Your task to perform on an android device: turn on translation in the chrome app Image 0: 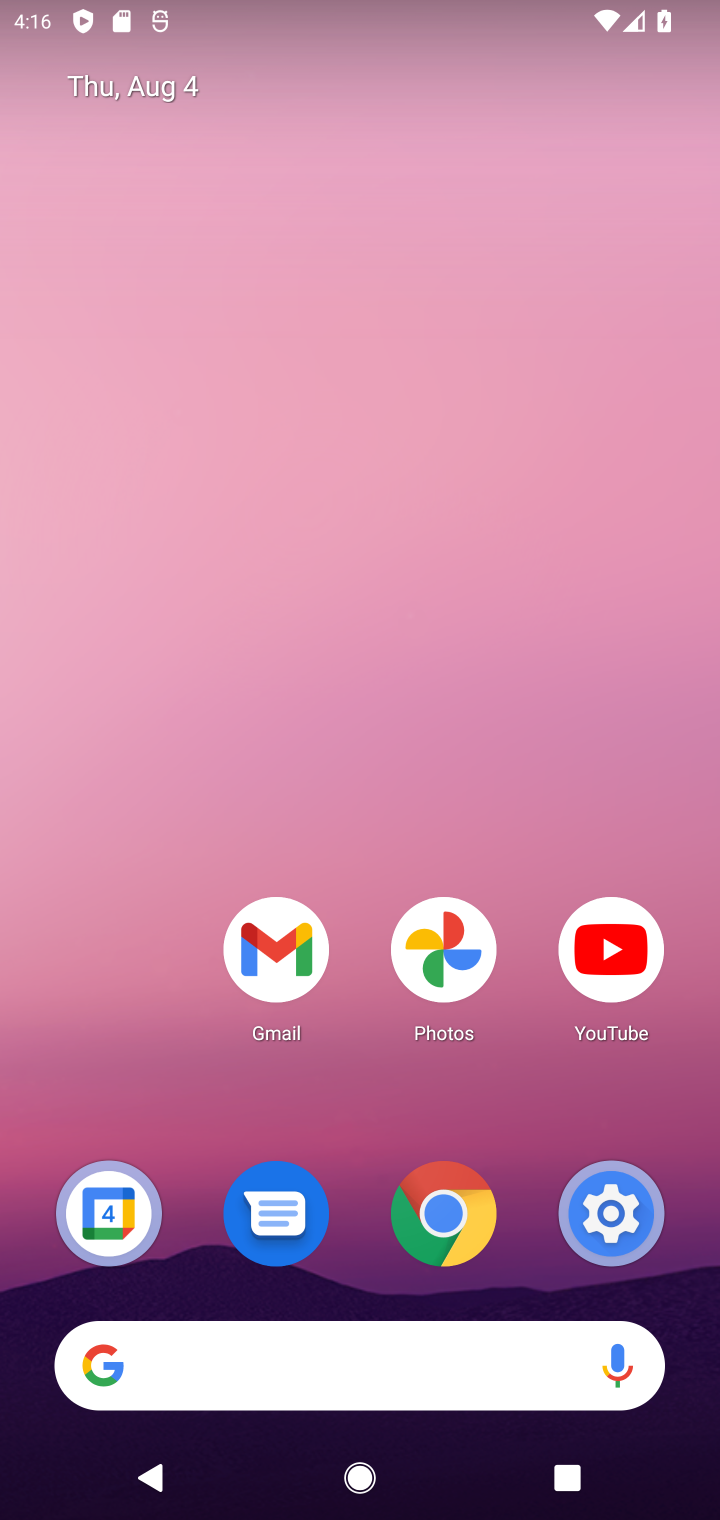
Step 0: press home button
Your task to perform on an android device: turn on translation in the chrome app Image 1: 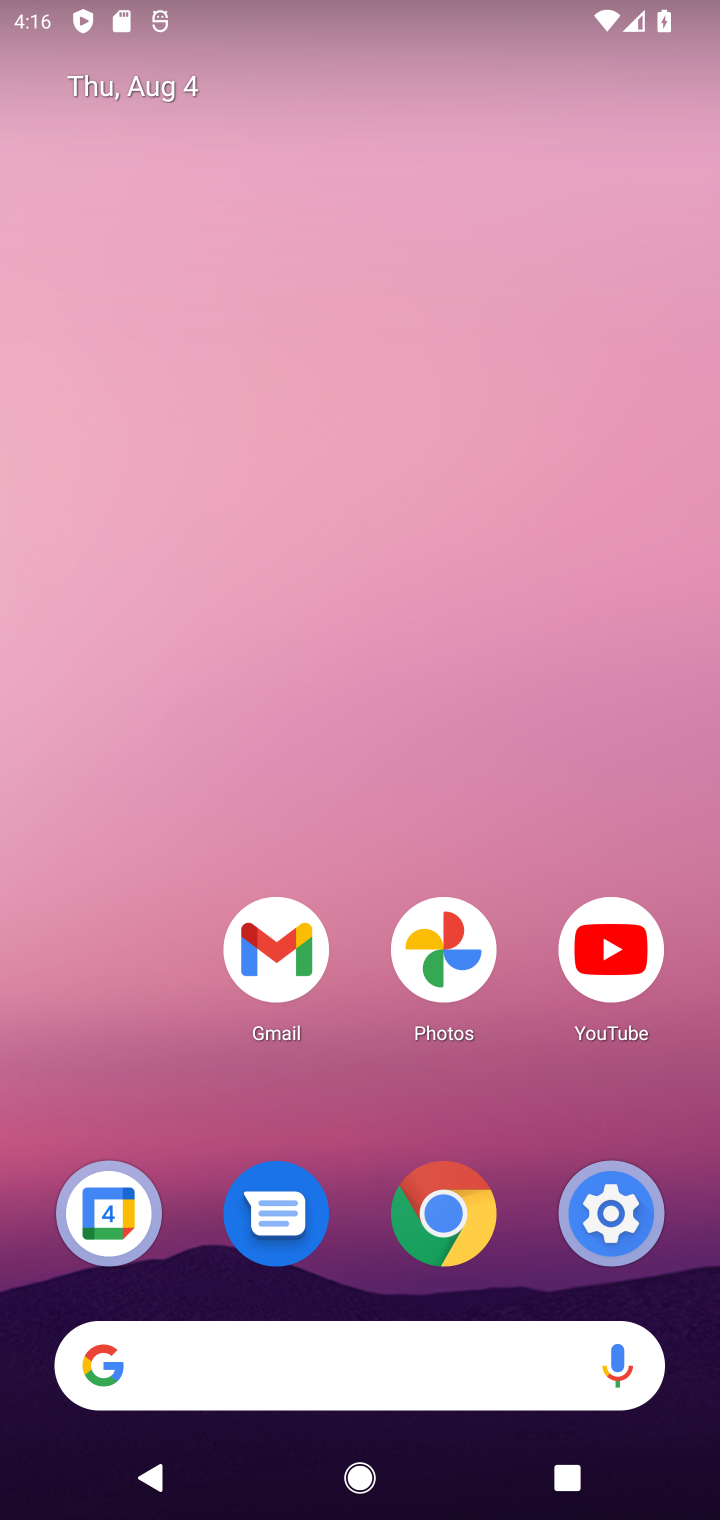
Step 1: drag from (164, 1066) to (112, 270)
Your task to perform on an android device: turn on translation in the chrome app Image 2: 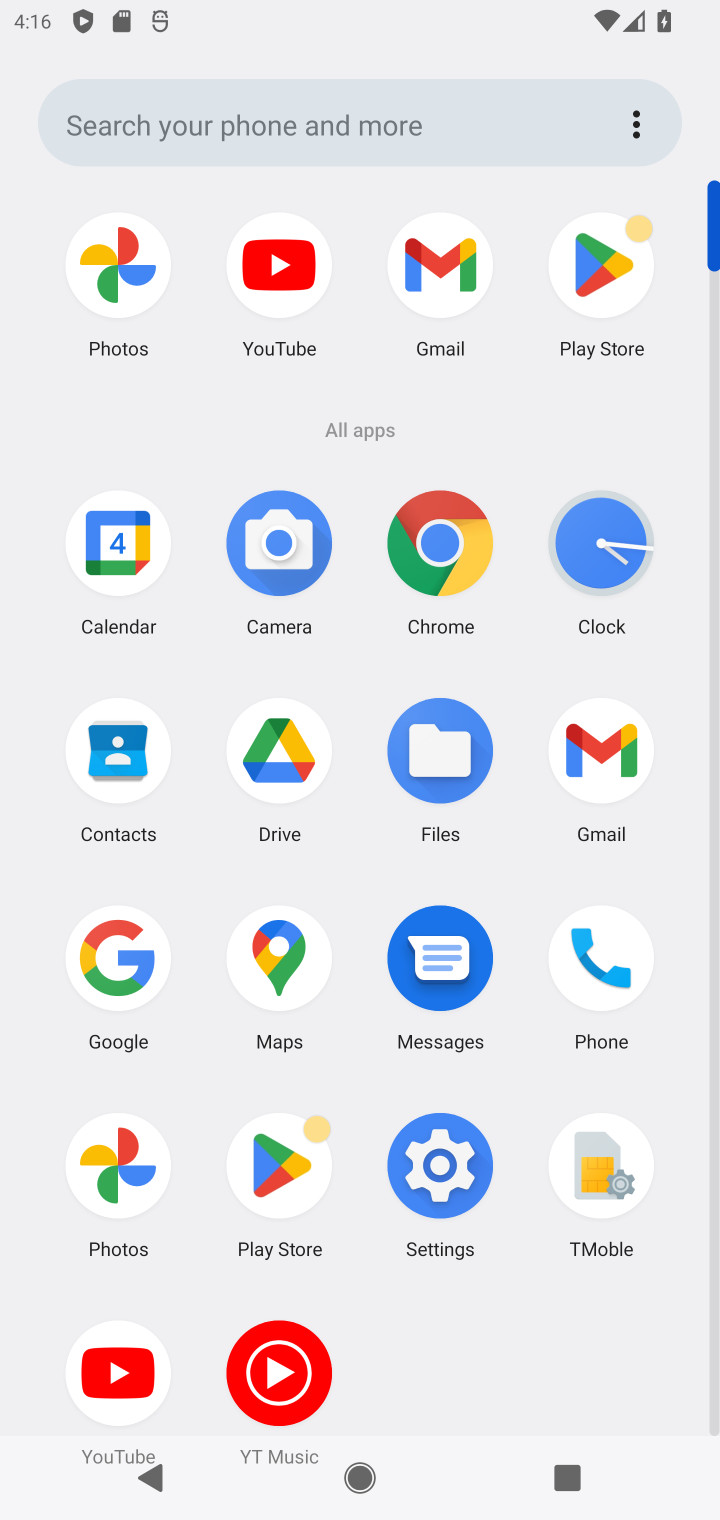
Step 2: click (457, 540)
Your task to perform on an android device: turn on translation in the chrome app Image 3: 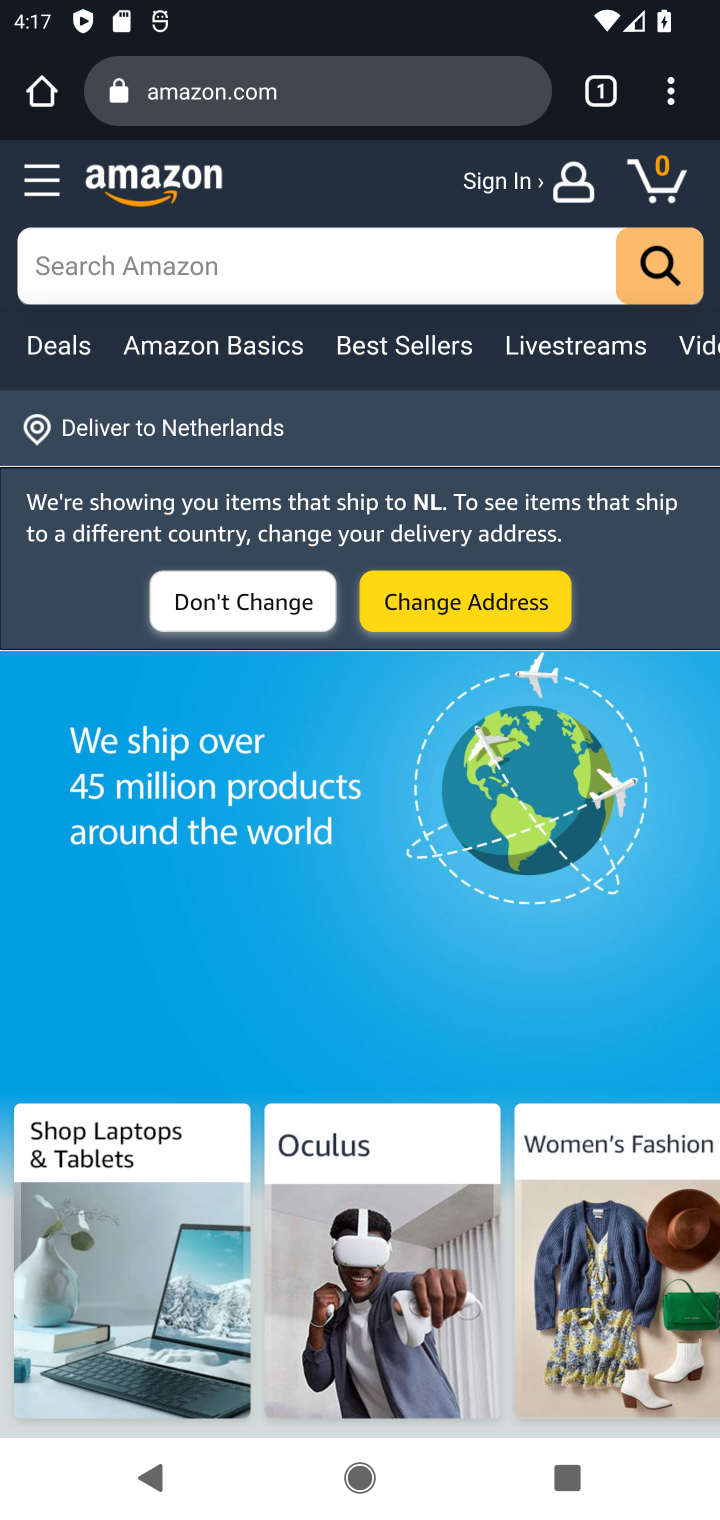
Step 3: click (666, 91)
Your task to perform on an android device: turn on translation in the chrome app Image 4: 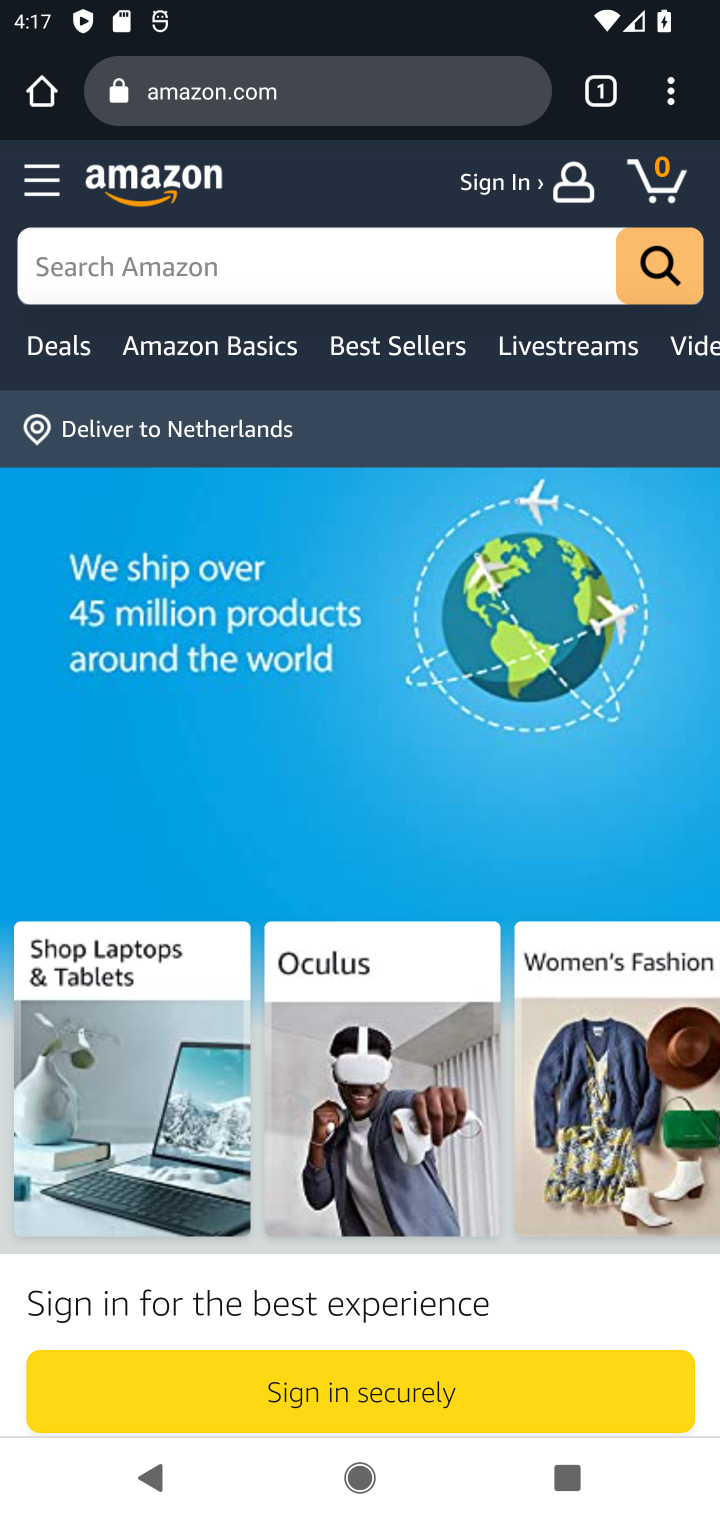
Step 4: click (676, 102)
Your task to perform on an android device: turn on translation in the chrome app Image 5: 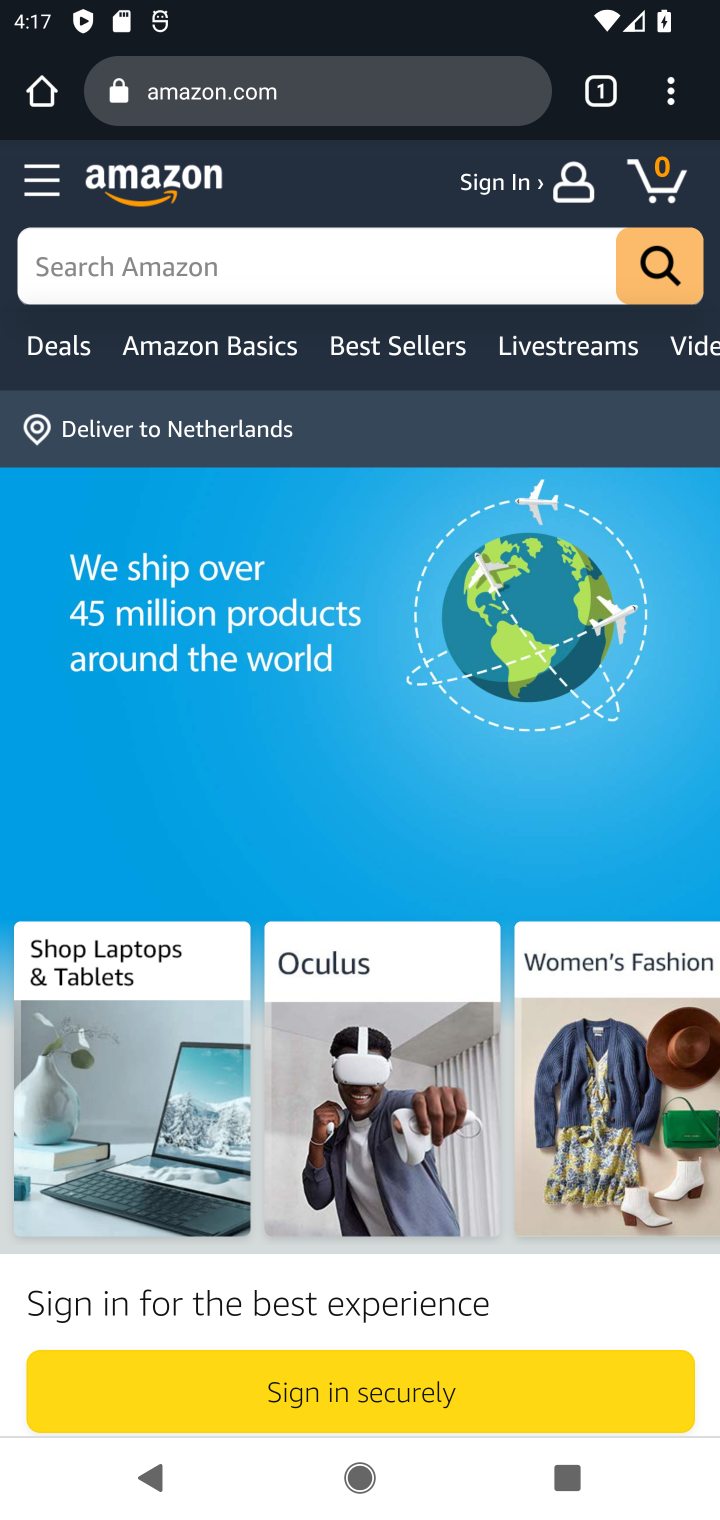
Step 5: click (671, 102)
Your task to perform on an android device: turn on translation in the chrome app Image 6: 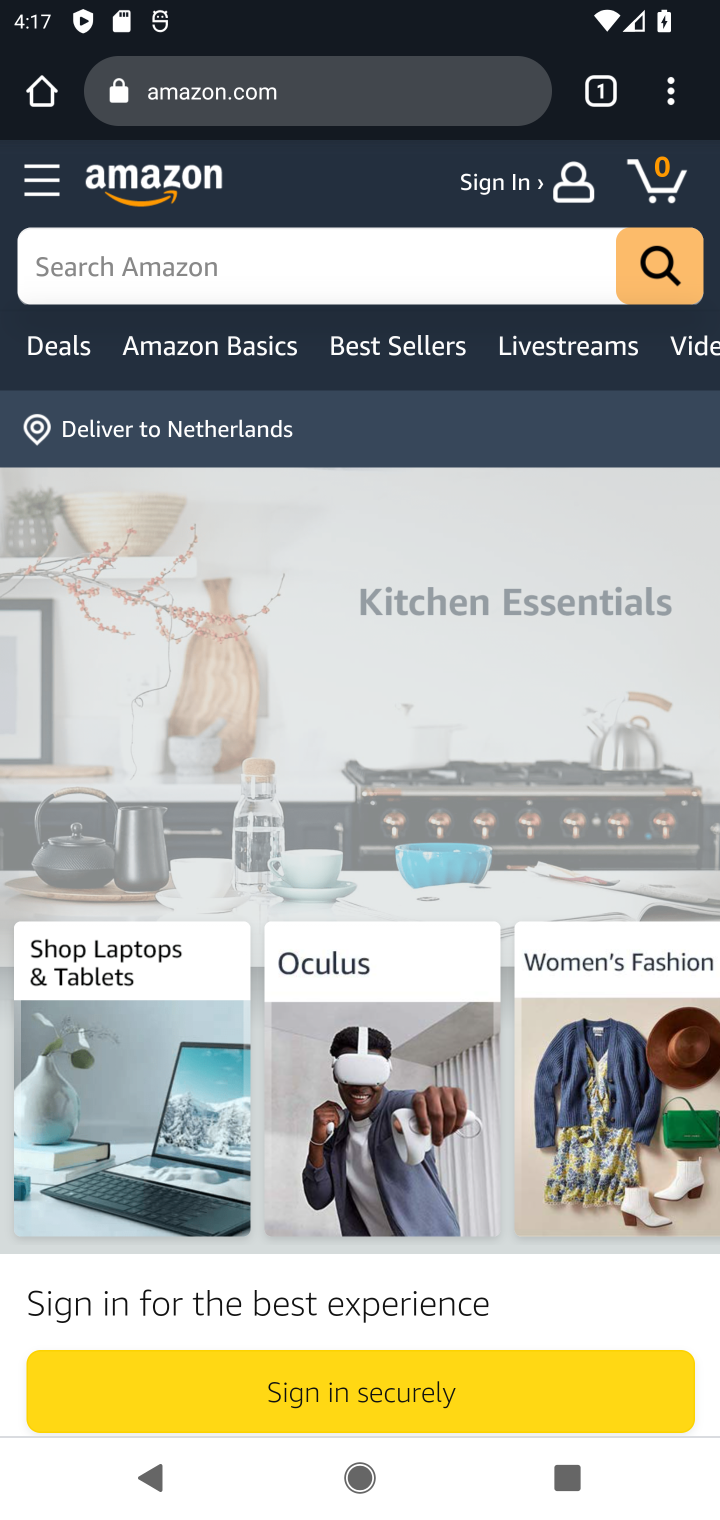
Step 6: click (674, 85)
Your task to perform on an android device: turn on translation in the chrome app Image 7: 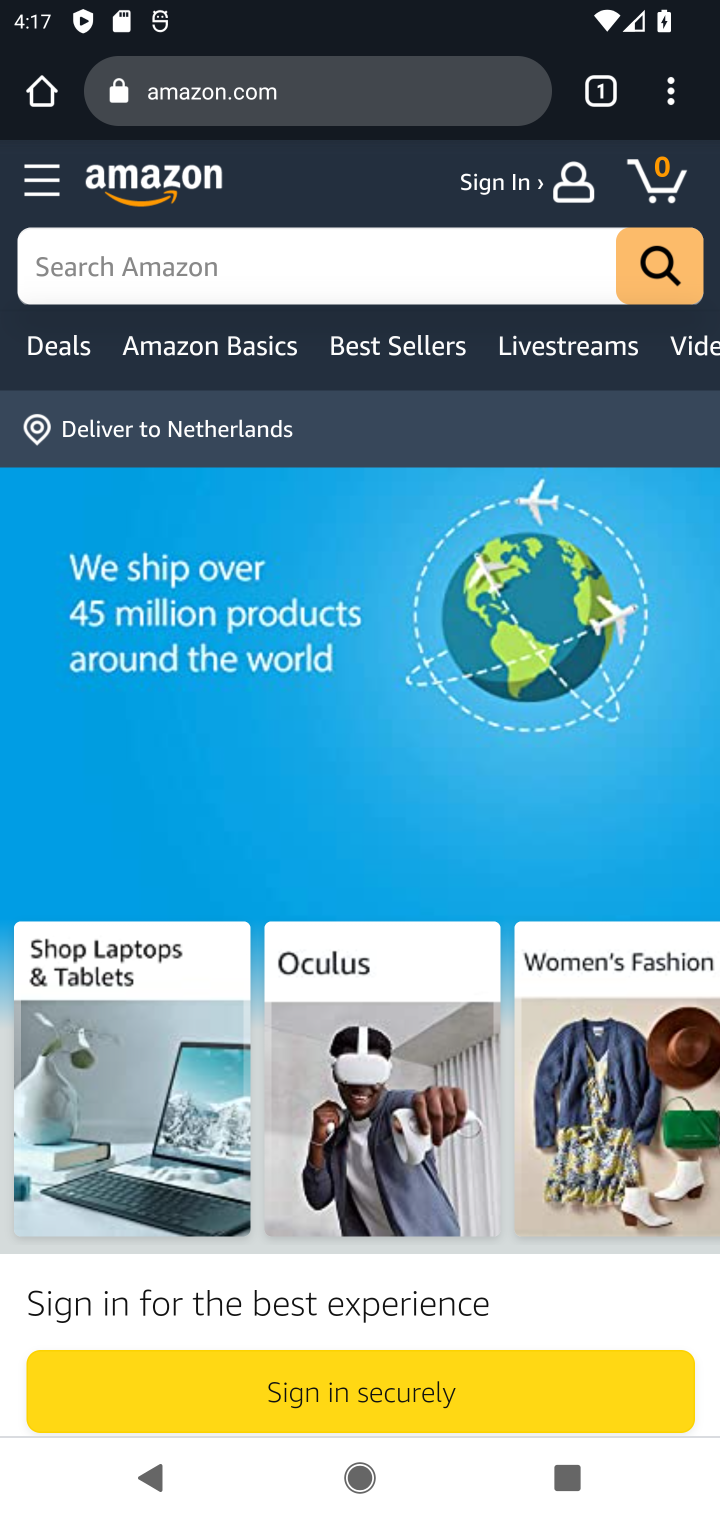
Step 7: click (673, 102)
Your task to perform on an android device: turn on translation in the chrome app Image 8: 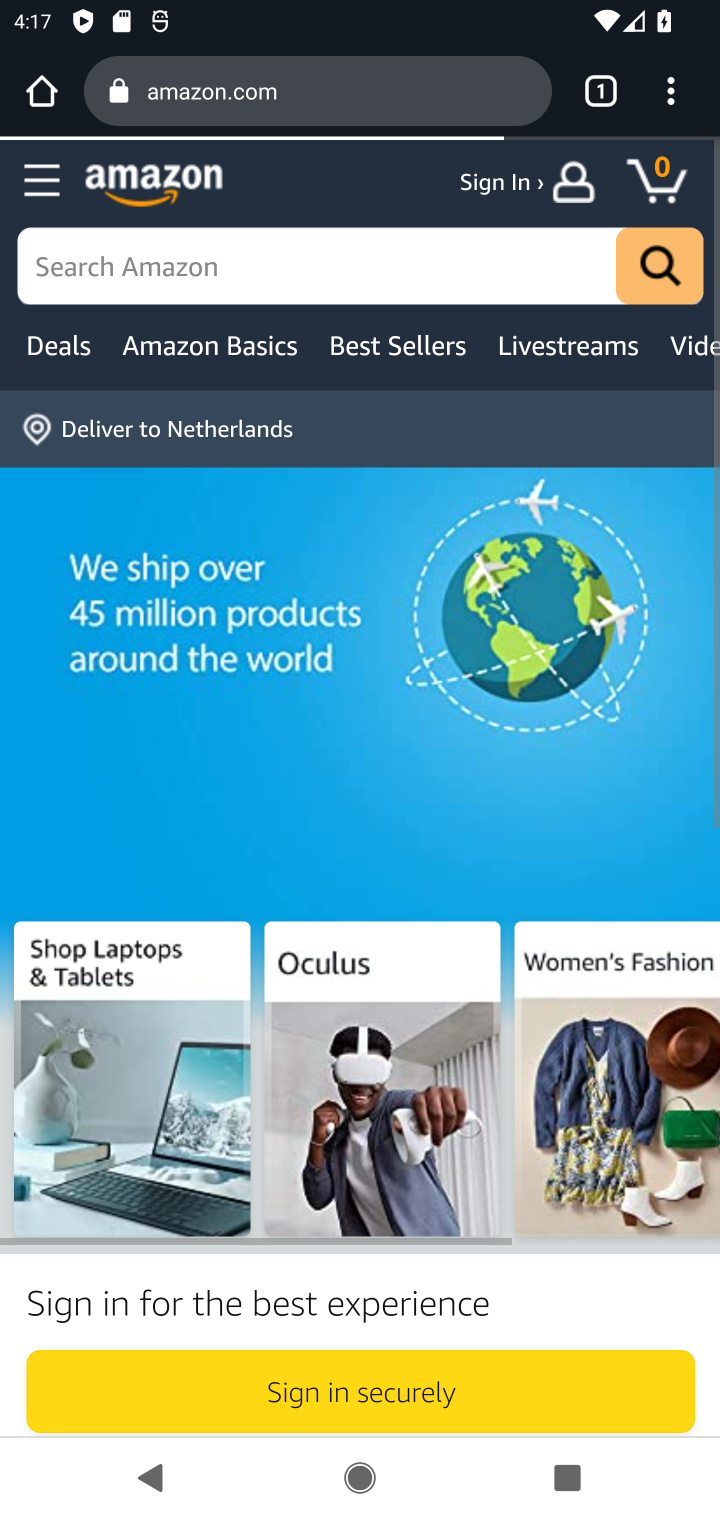
Step 8: click (674, 99)
Your task to perform on an android device: turn on translation in the chrome app Image 9: 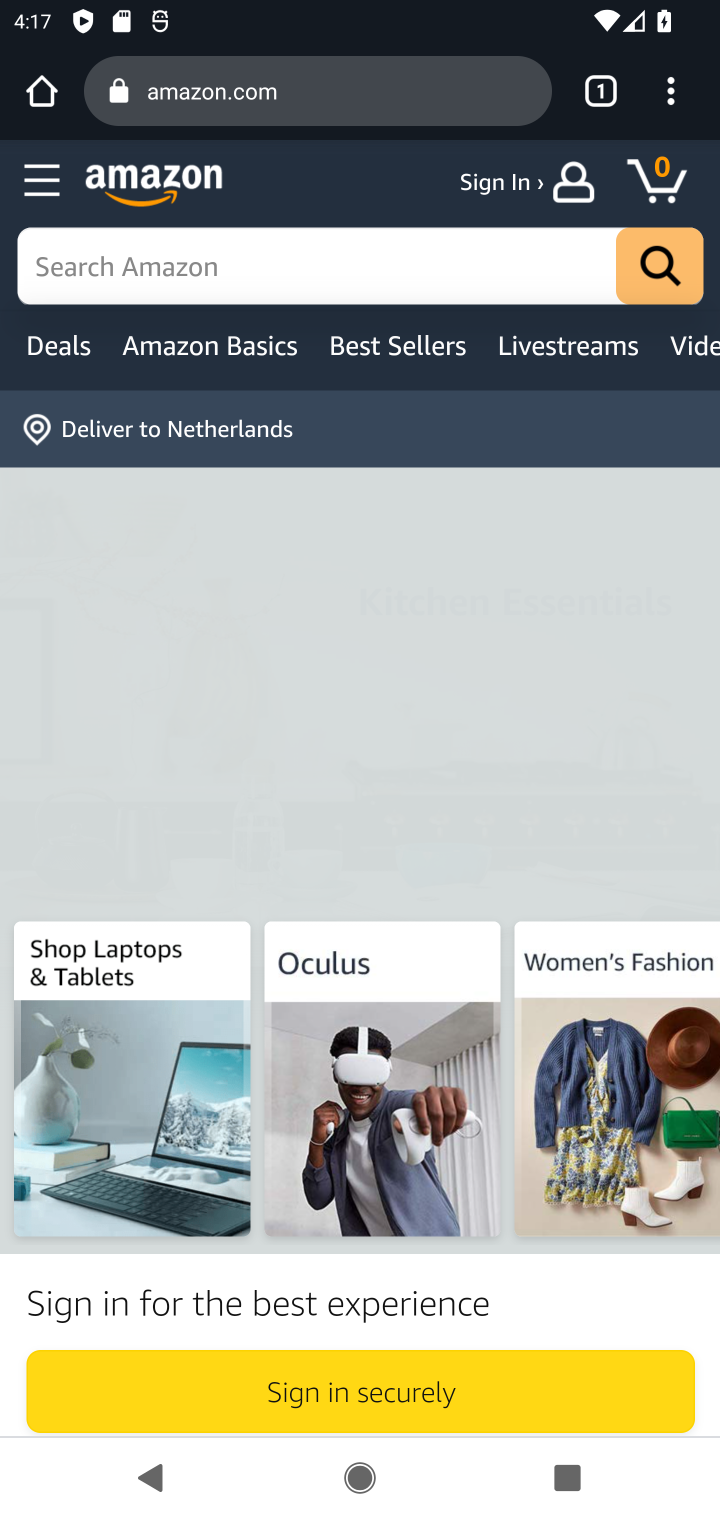
Step 9: click (670, 99)
Your task to perform on an android device: turn on translation in the chrome app Image 10: 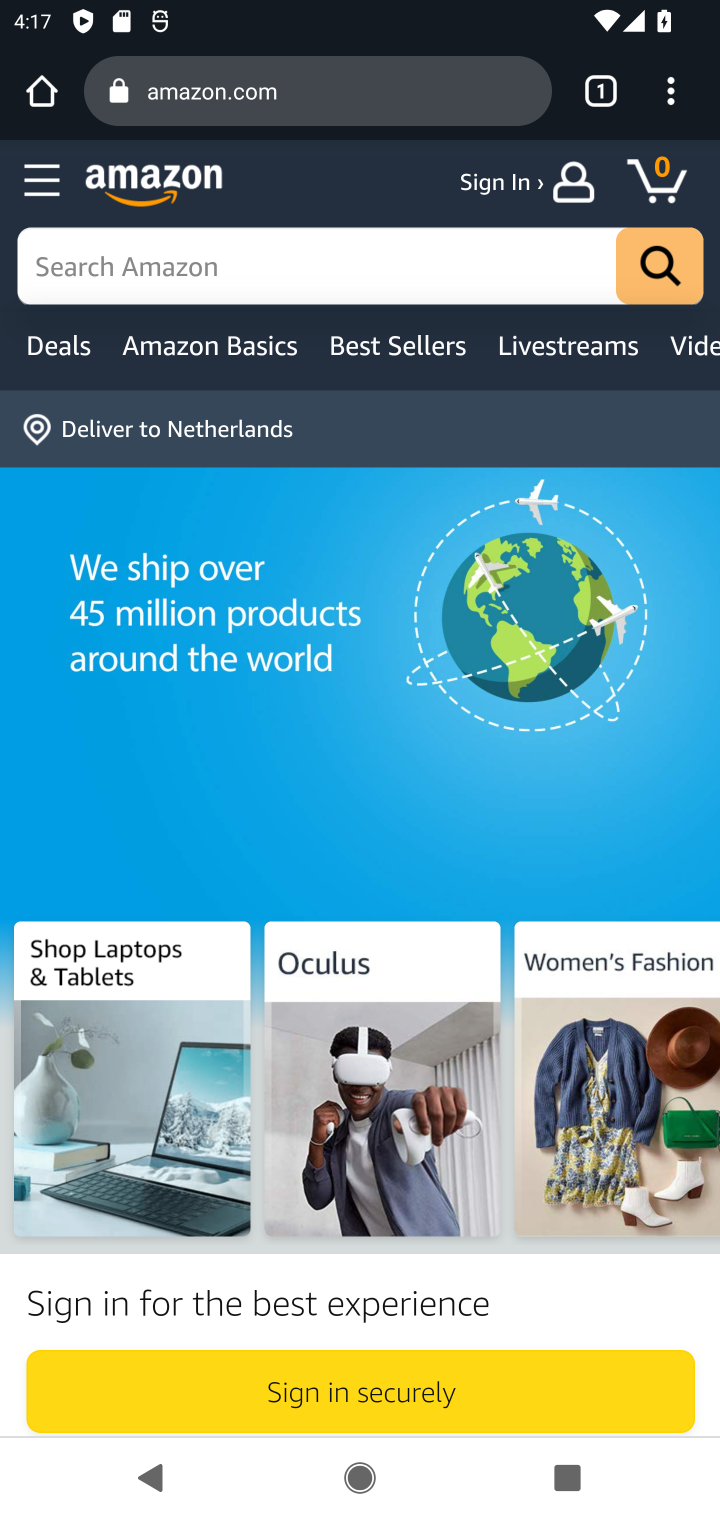
Step 10: click (667, 104)
Your task to perform on an android device: turn on translation in the chrome app Image 11: 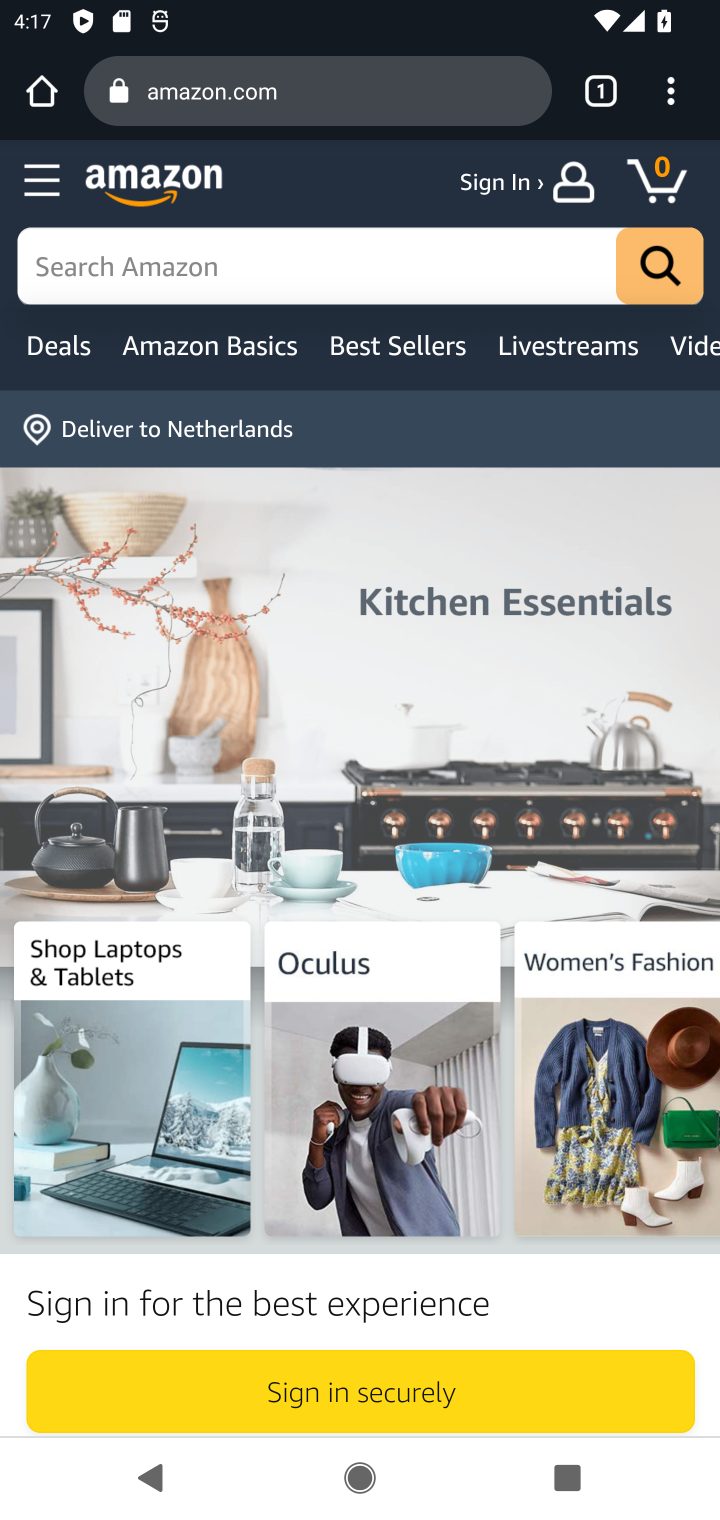
Step 11: task complete